Your task to perform on an android device: What's the news in Pakistan? Image 0: 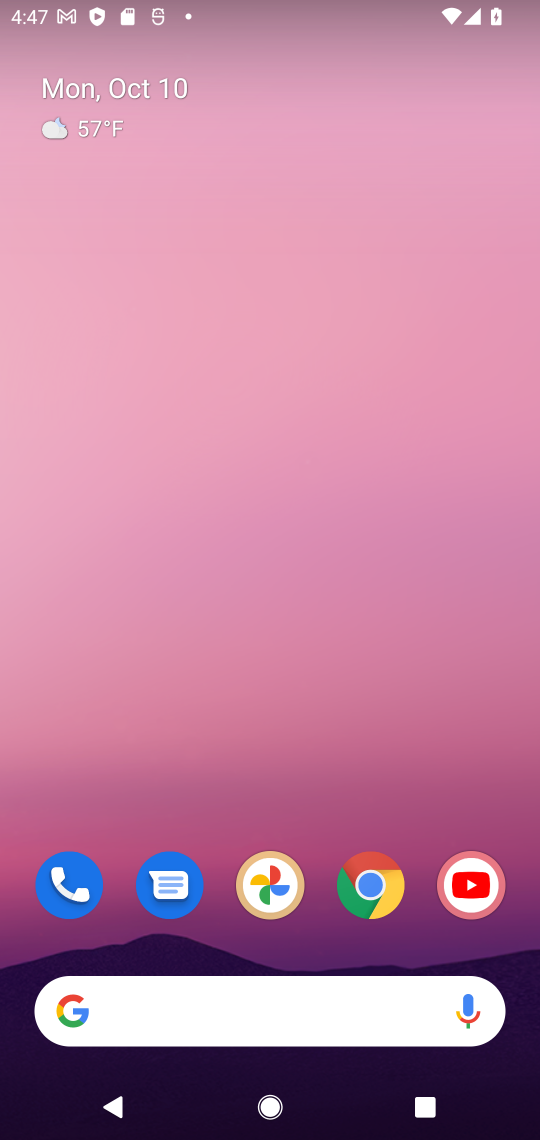
Step 0: click (209, 1002)
Your task to perform on an android device: What's the news in Pakistan? Image 1: 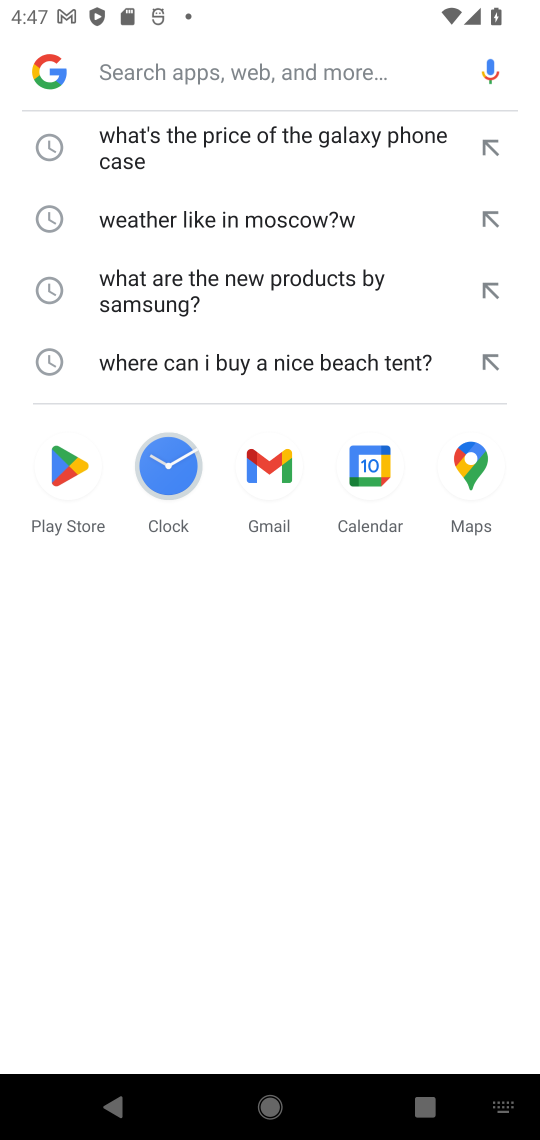
Step 1: type "What's the news in Pakistan?"
Your task to perform on an android device: What's the news in Pakistan? Image 2: 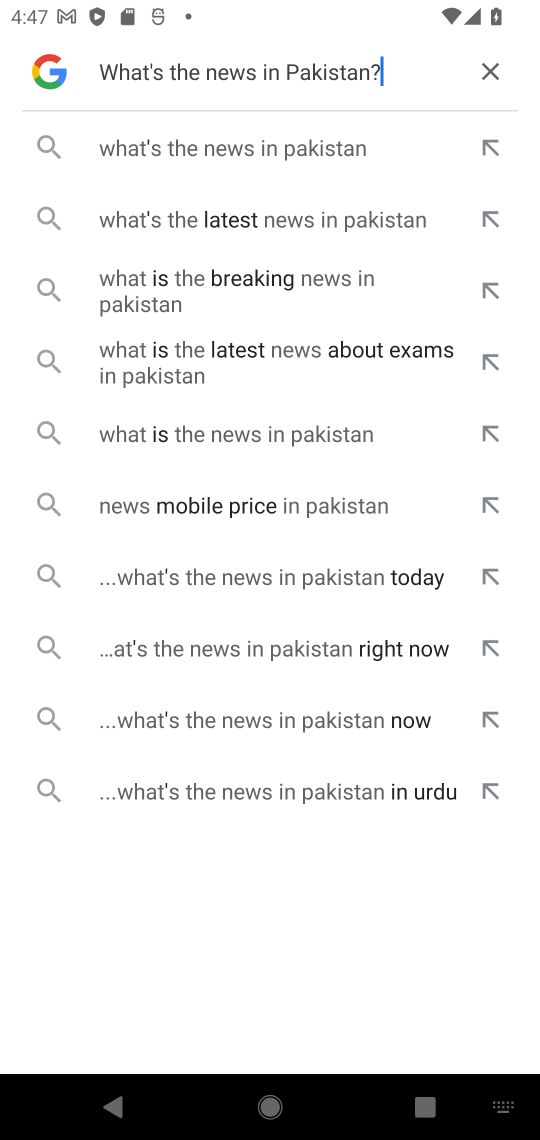
Step 2: click (282, 142)
Your task to perform on an android device: What's the news in Pakistan? Image 3: 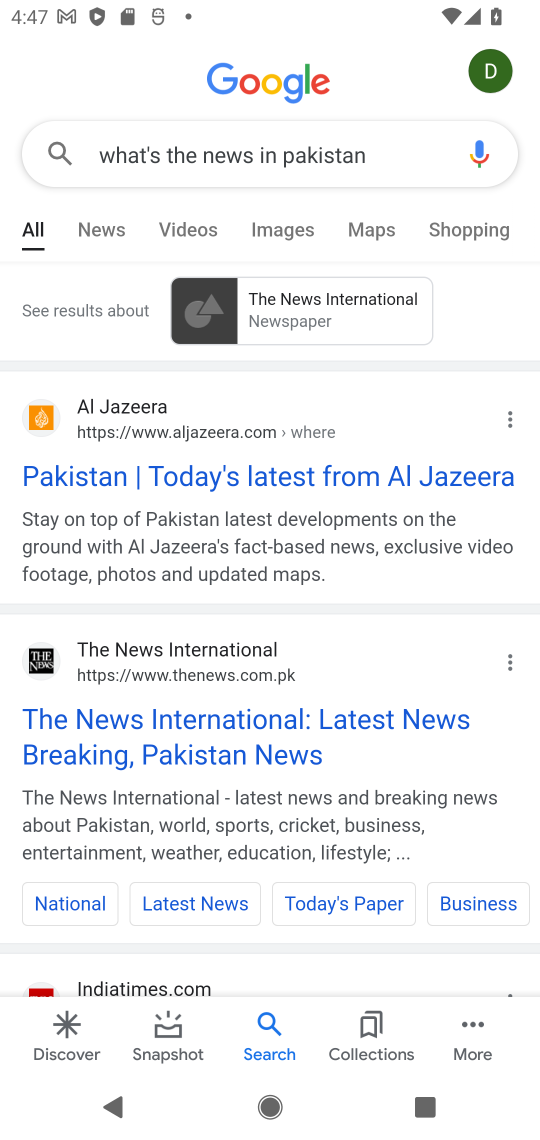
Step 3: click (357, 471)
Your task to perform on an android device: What's the news in Pakistan? Image 4: 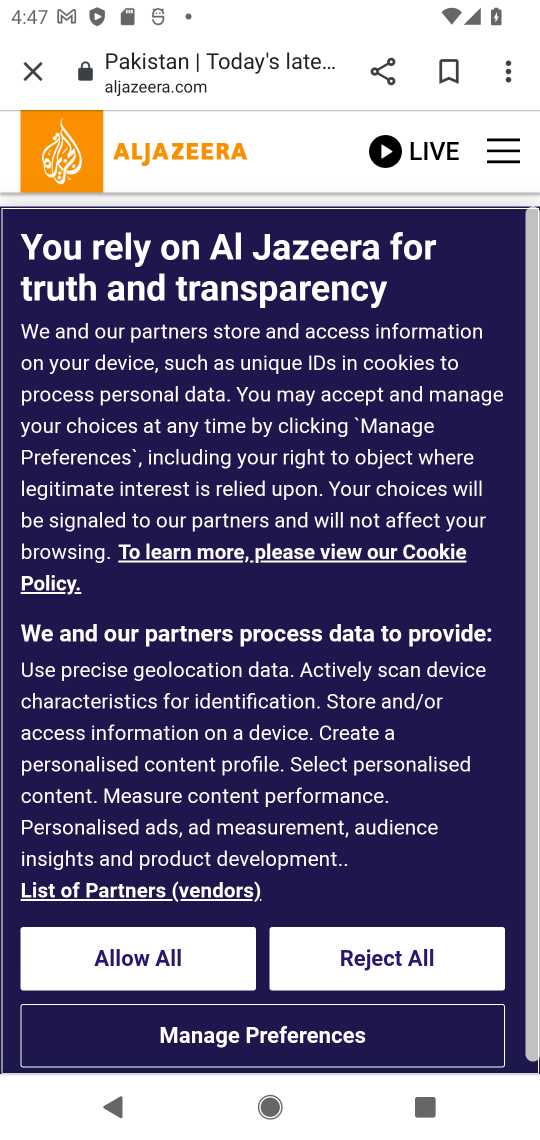
Step 4: click (159, 960)
Your task to perform on an android device: What's the news in Pakistan? Image 5: 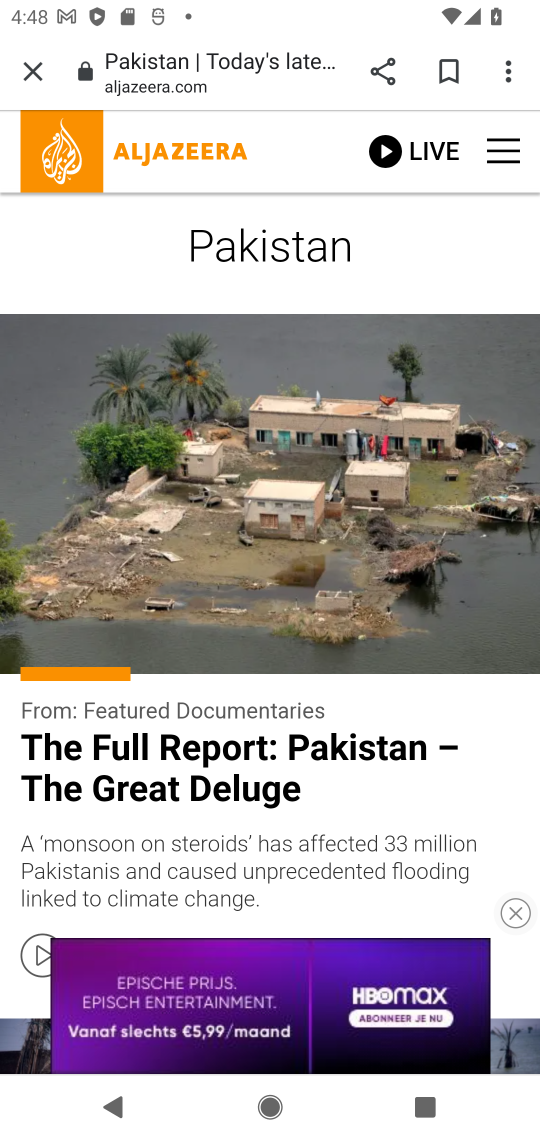
Step 5: task complete